Your task to perform on an android device: Show me the alarms in the clock app Image 0: 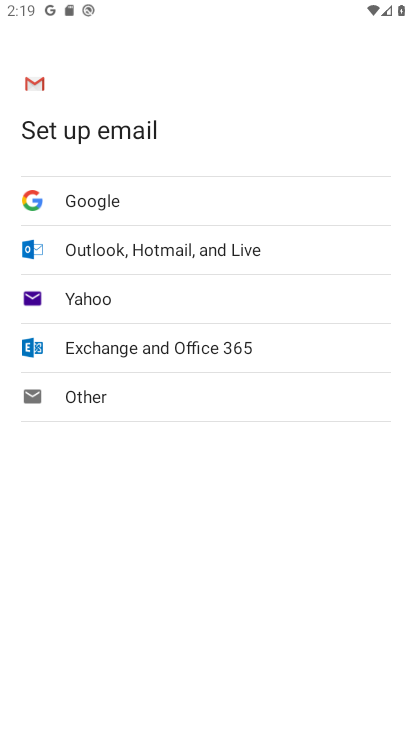
Step 0: press home button
Your task to perform on an android device: Show me the alarms in the clock app Image 1: 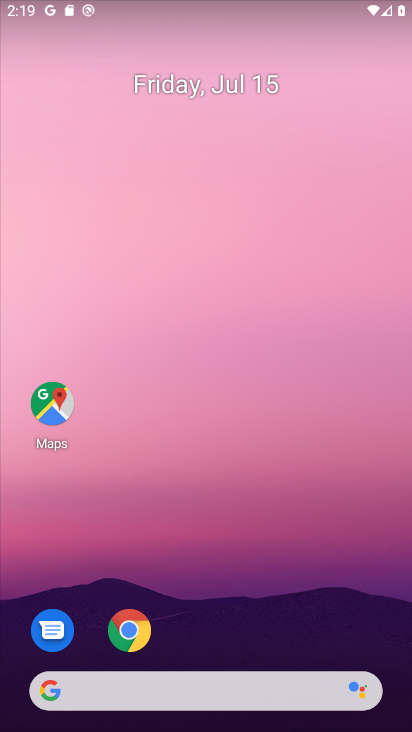
Step 1: drag from (252, 672) to (167, 138)
Your task to perform on an android device: Show me the alarms in the clock app Image 2: 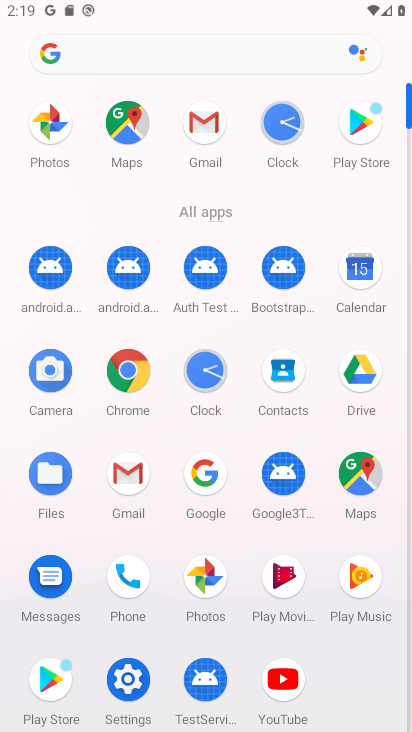
Step 2: click (213, 366)
Your task to perform on an android device: Show me the alarms in the clock app Image 3: 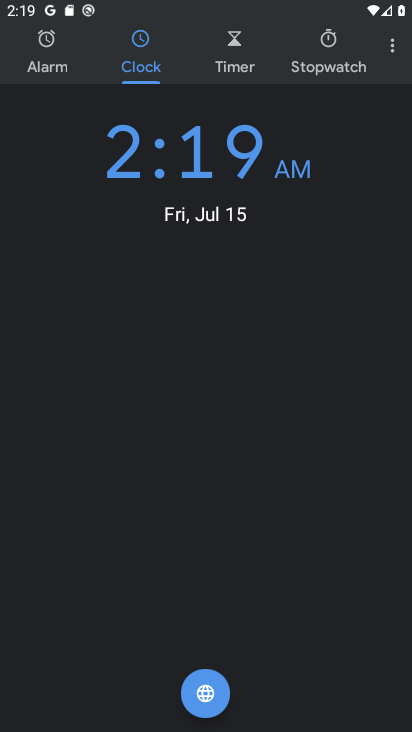
Step 3: click (69, 75)
Your task to perform on an android device: Show me the alarms in the clock app Image 4: 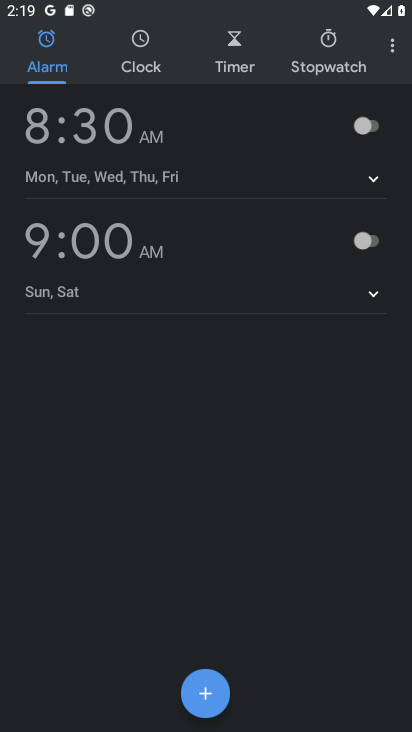
Step 4: task complete